Your task to perform on an android device: Open the calendar and show me this week's events? Image 0: 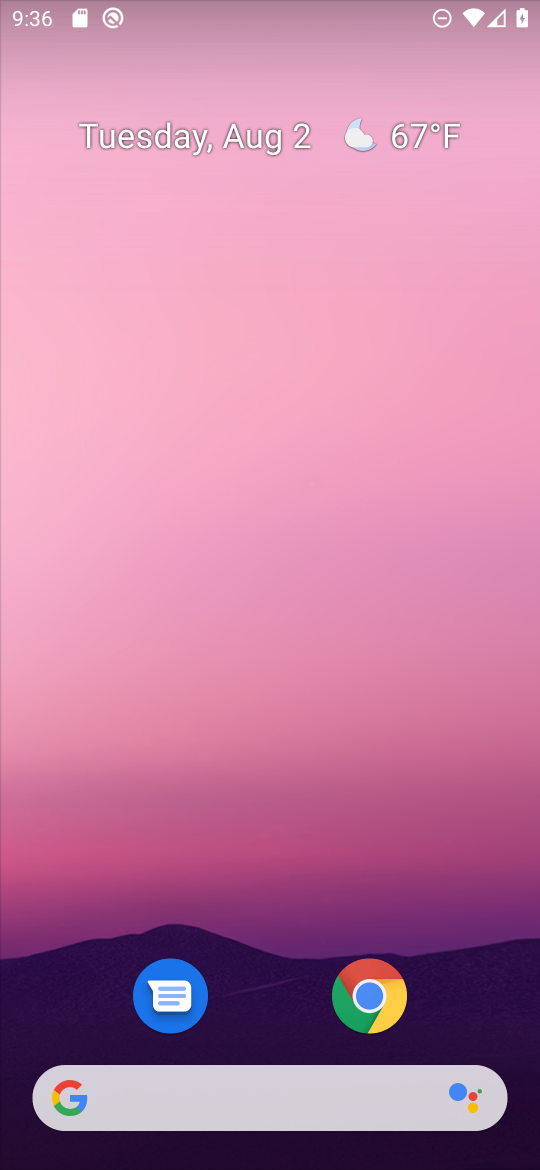
Step 0: press home button
Your task to perform on an android device: Open the calendar and show me this week's events? Image 1: 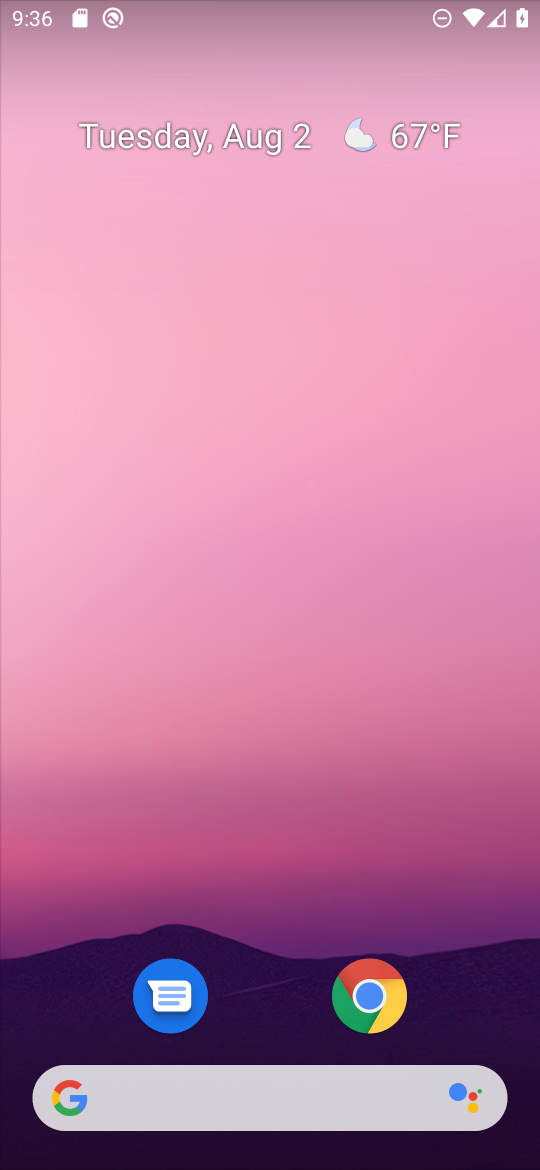
Step 1: drag from (246, 979) to (302, 55)
Your task to perform on an android device: Open the calendar and show me this week's events? Image 2: 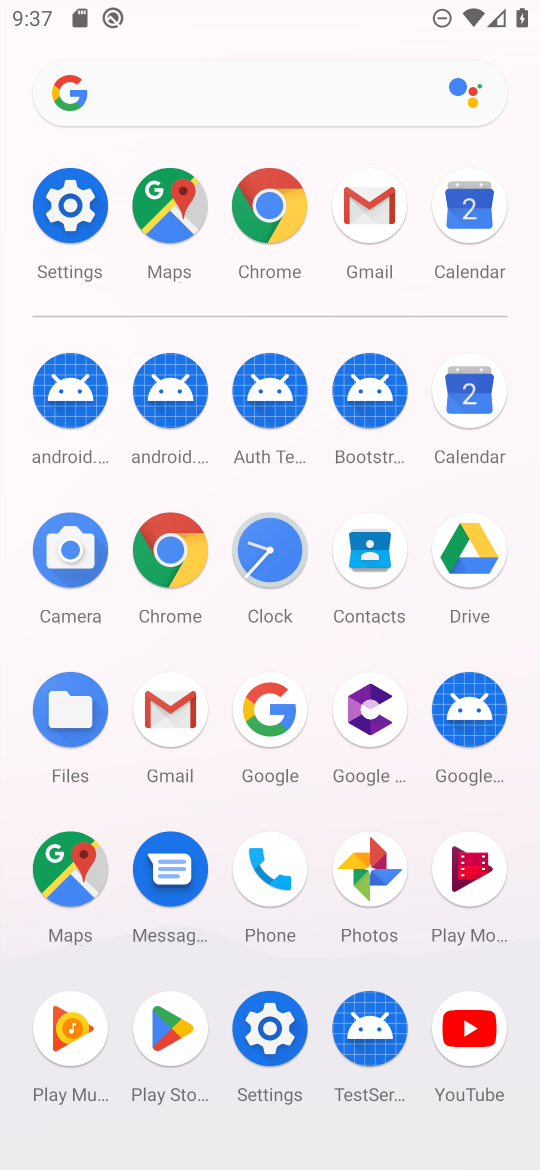
Step 2: click (462, 208)
Your task to perform on an android device: Open the calendar and show me this week's events? Image 3: 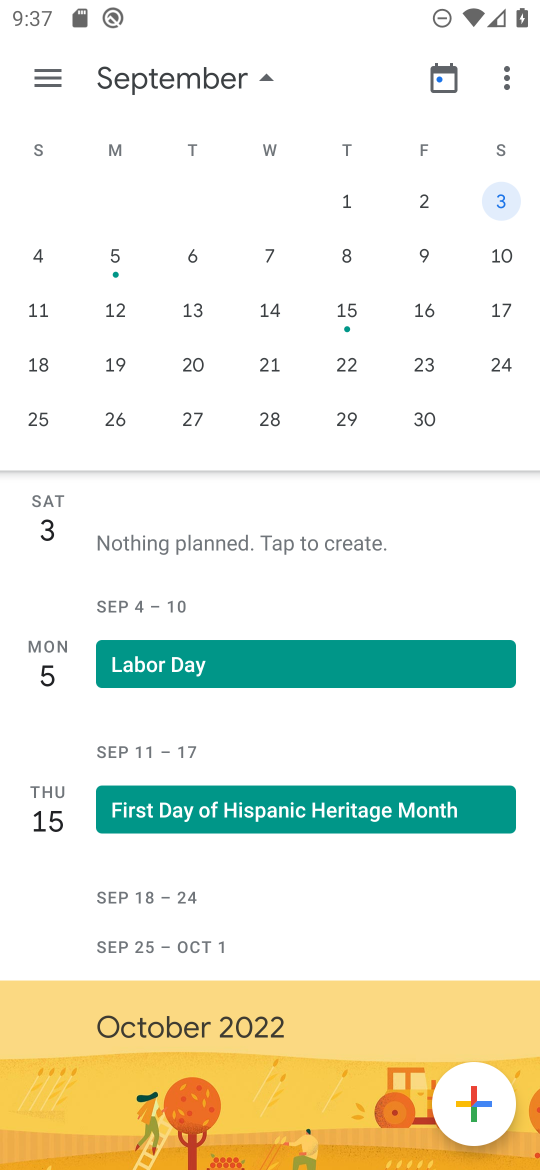
Step 3: click (500, 195)
Your task to perform on an android device: Open the calendar and show me this week's events? Image 4: 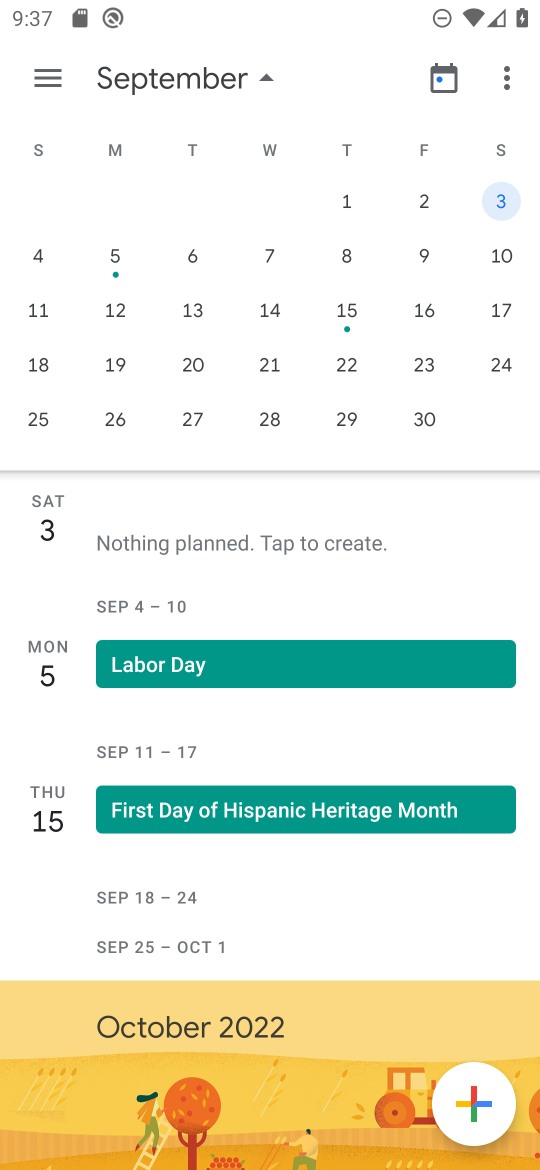
Step 4: task complete